Your task to perform on an android device: Open a new private tab in Chrome Image 0: 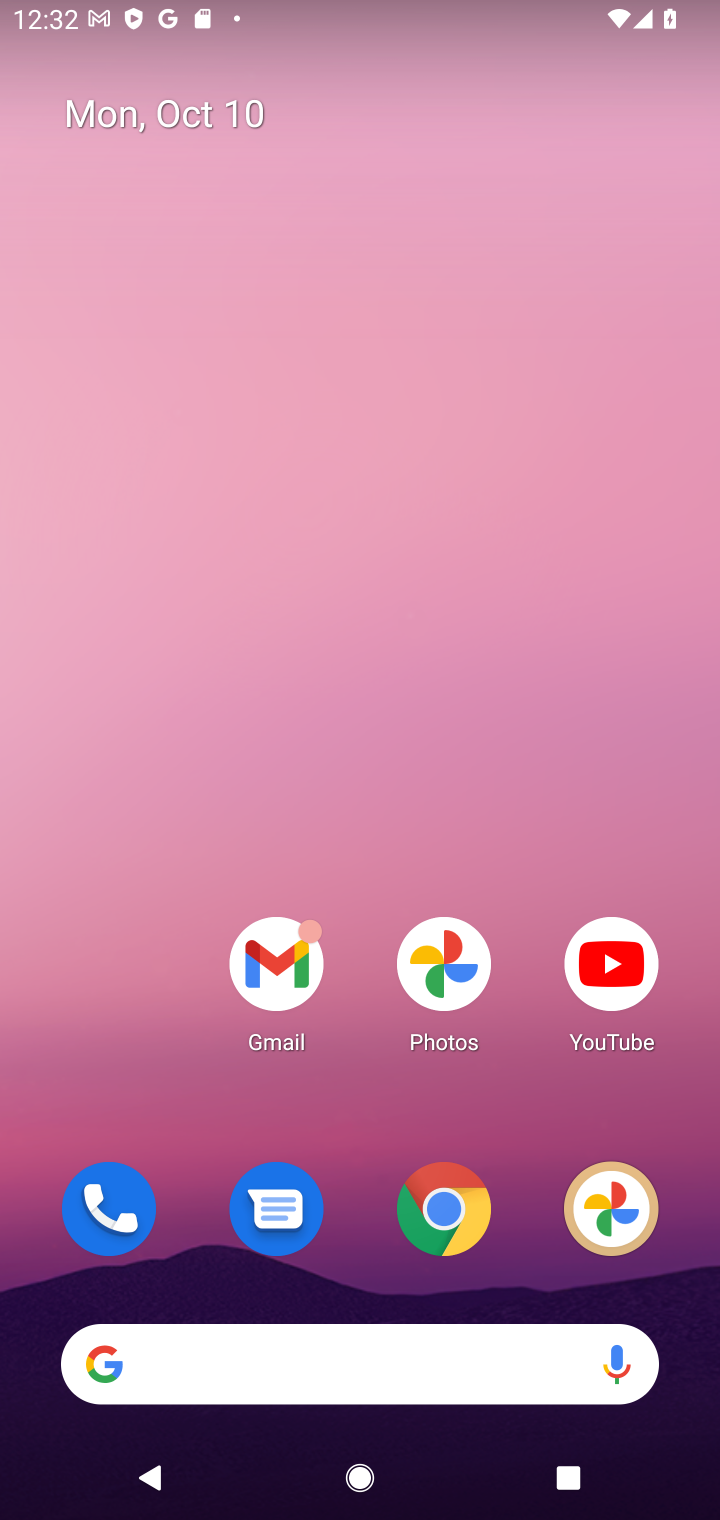
Step 0: drag from (408, 1303) to (438, 0)
Your task to perform on an android device: Open a new private tab in Chrome Image 1: 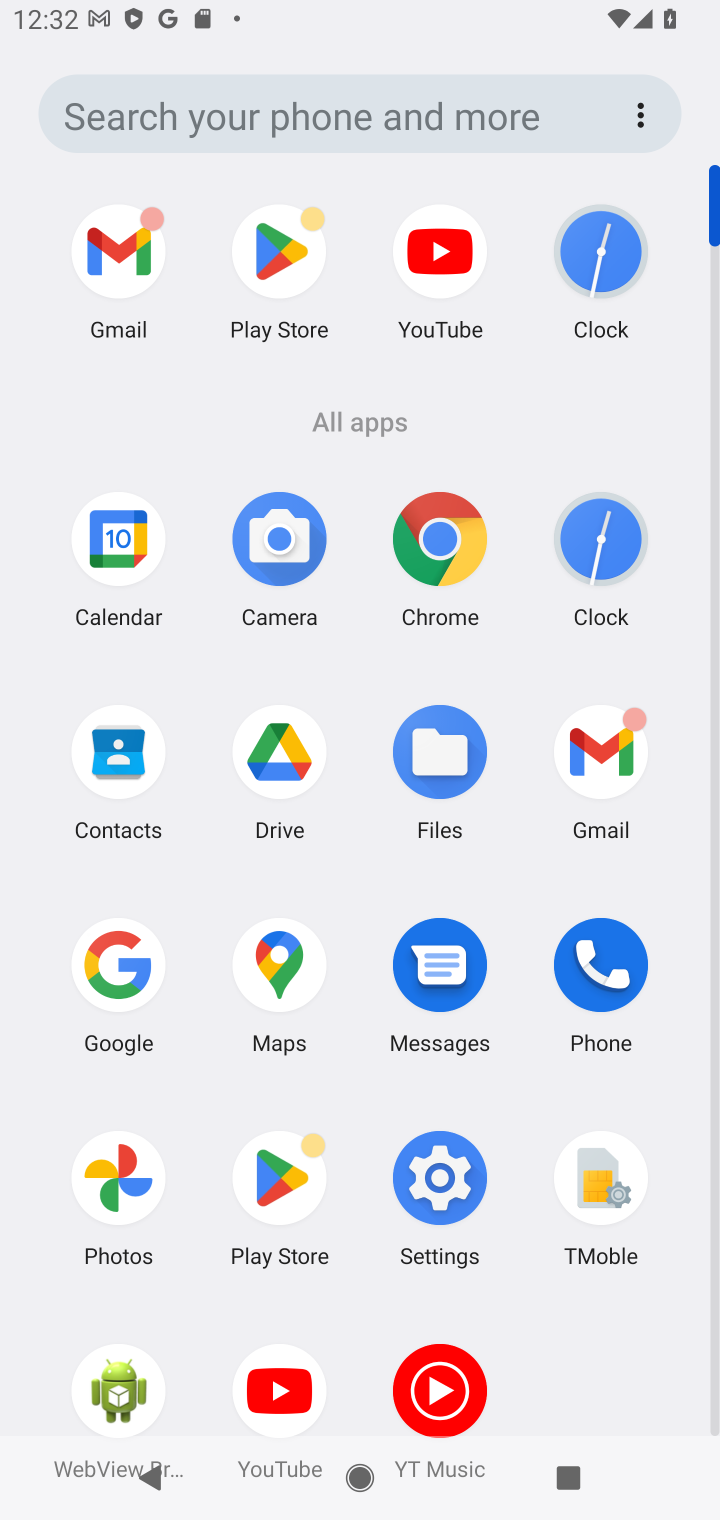
Step 1: click (430, 523)
Your task to perform on an android device: Open a new private tab in Chrome Image 2: 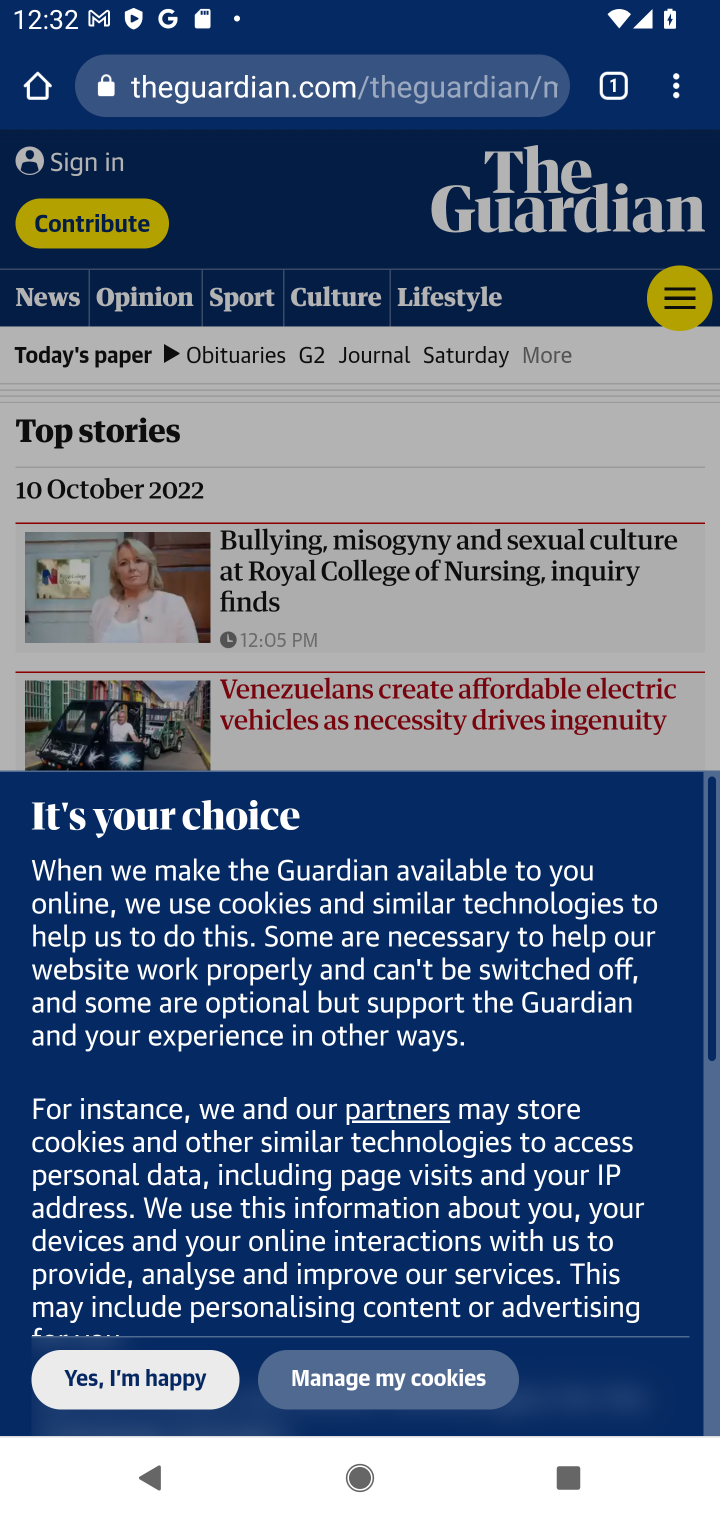
Step 2: click (672, 86)
Your task to perform on an android device: Open a new private tab in Chrome Image 3: 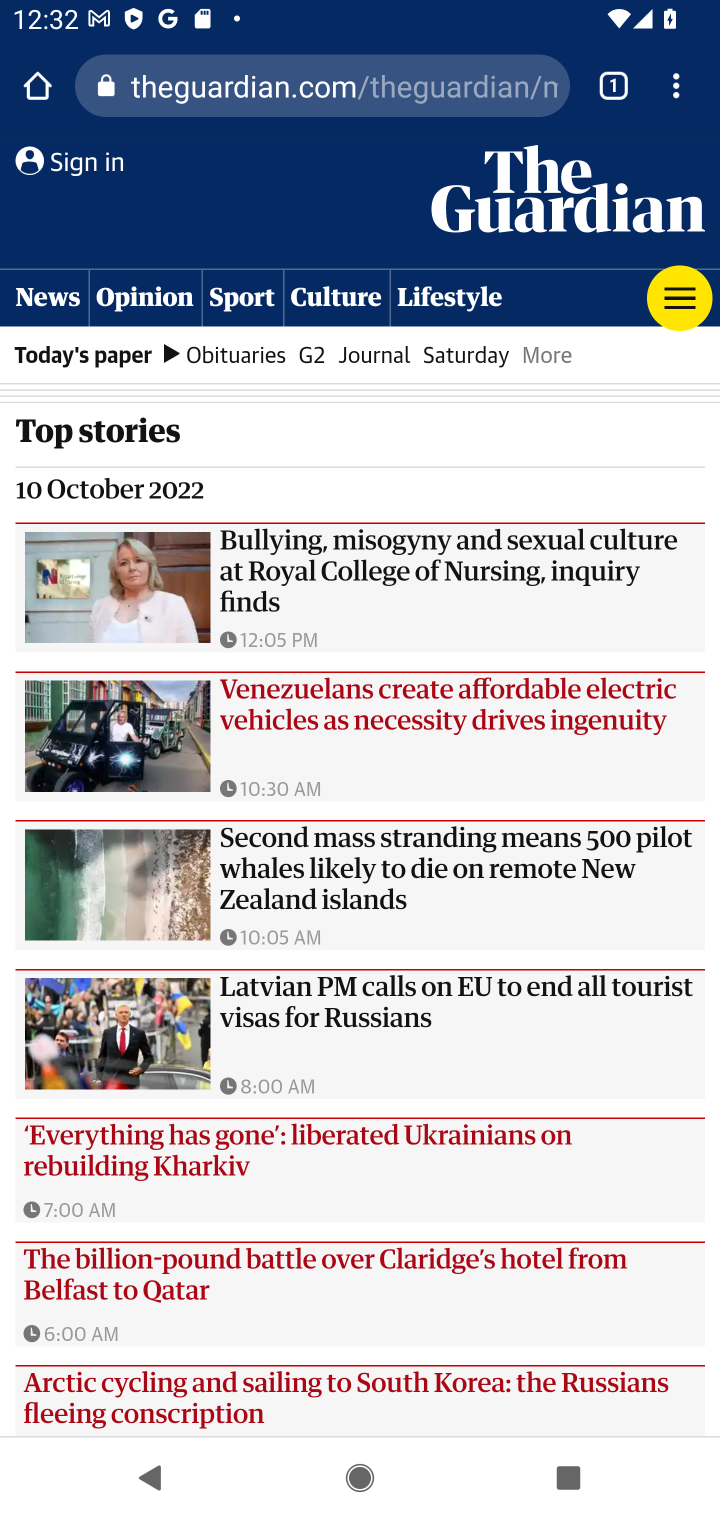
Step 3: click (675, 92)
Your task to perform on an android device: Open a new private tab in Chrome Image 4: 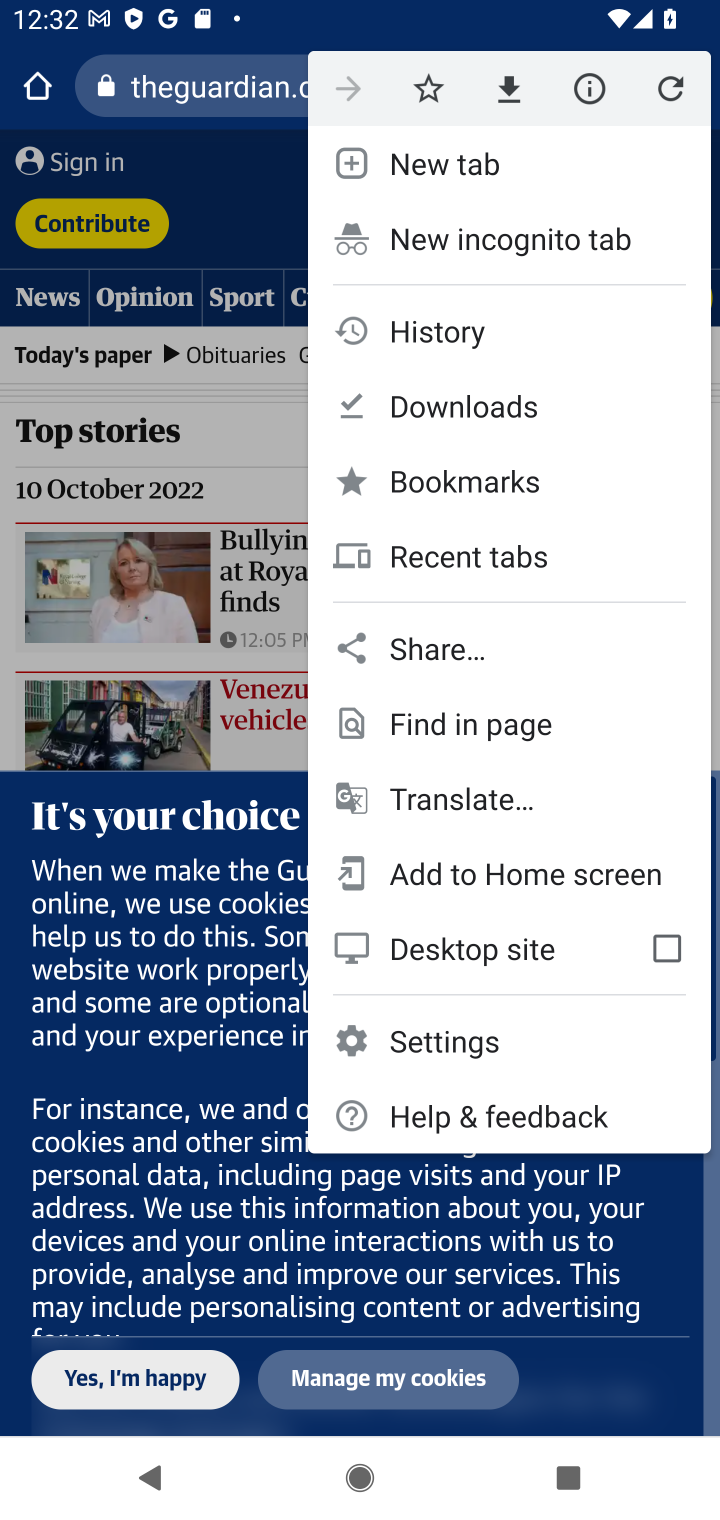
Step 4: click (509, 170)
Your task to perform on an android device: Open a new private tab in Chrome Image 5: 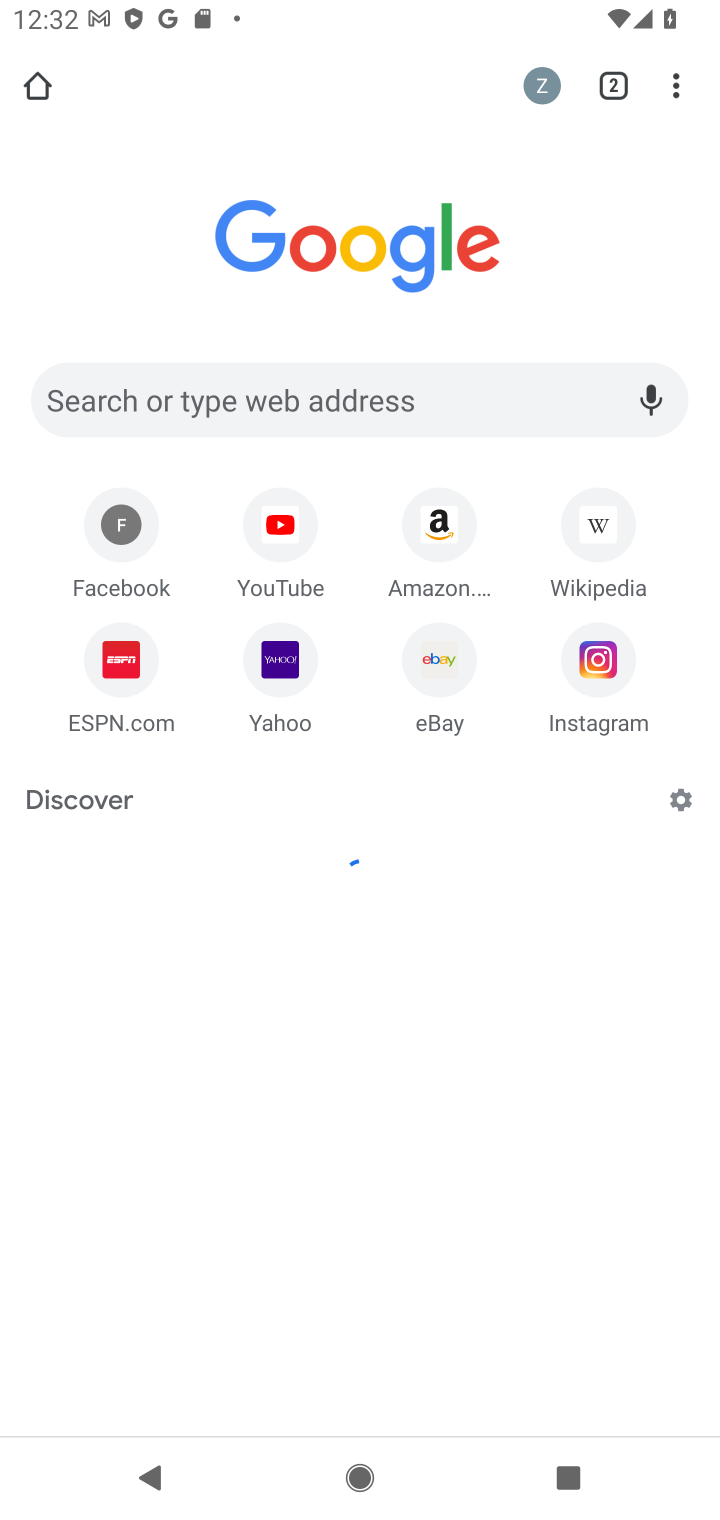
Step 5: click (439, 159)
Your task to perform on an android device: Open a new private tab in Chrome Image 6: 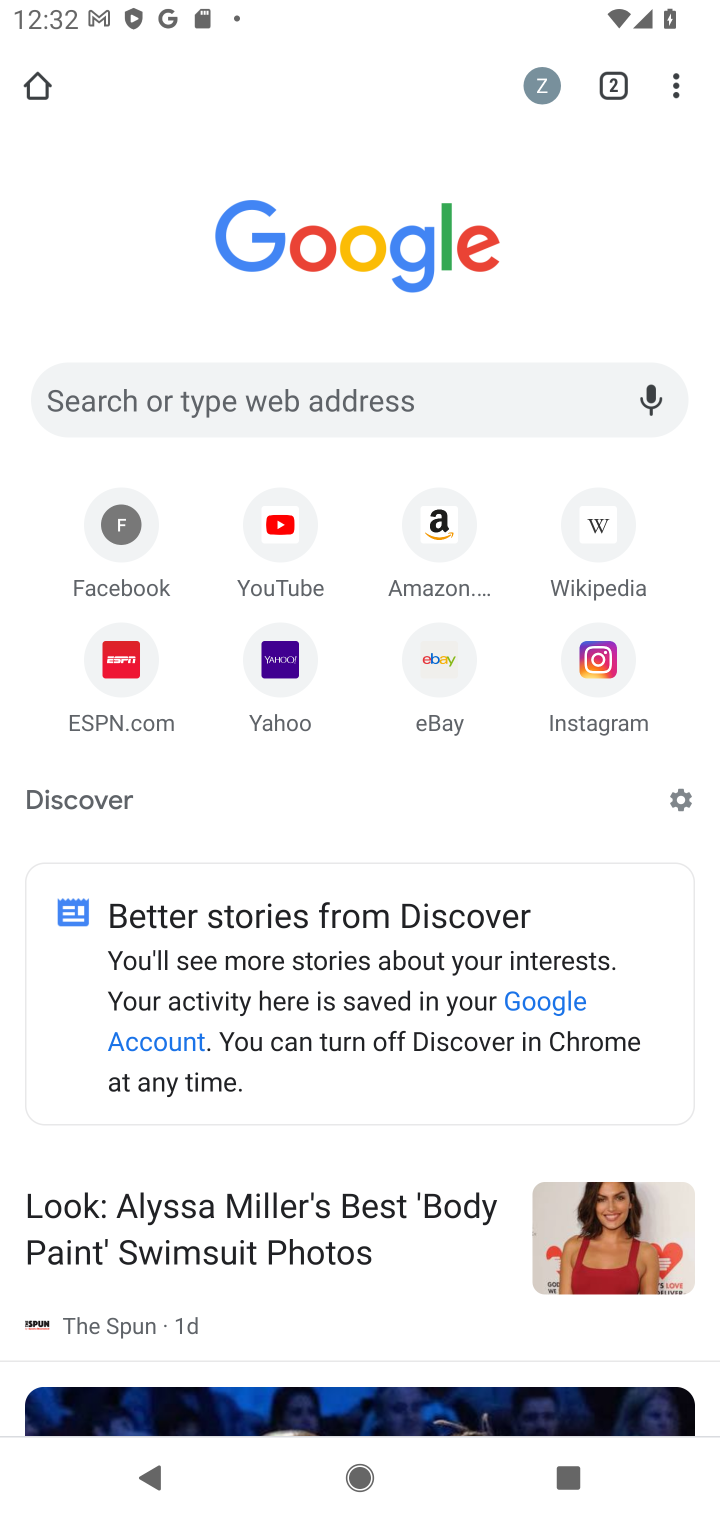
Step 6: task complete